Your task to perform on an android device: Go to Google Image 0: 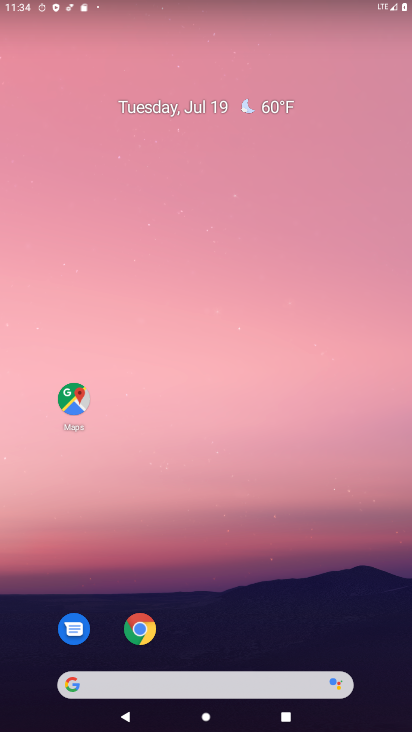
Step 0: drag from (231, 545) to (225, 135)
Your task to perform on an android device: Go to Google Image 1: 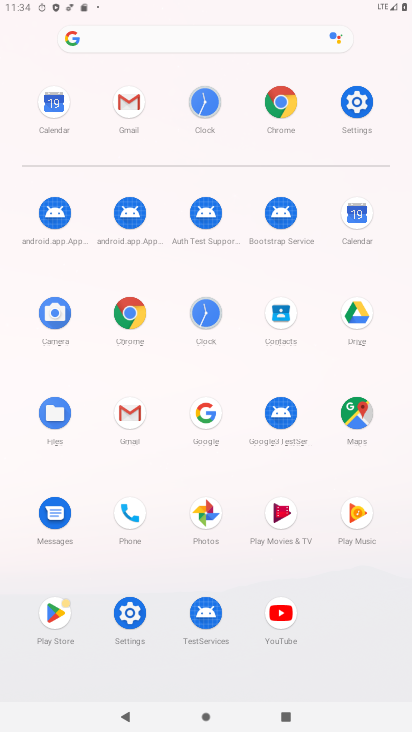
Step 1: click (200, 424)
Your task to perform on an android device: Go to Google Image 2: 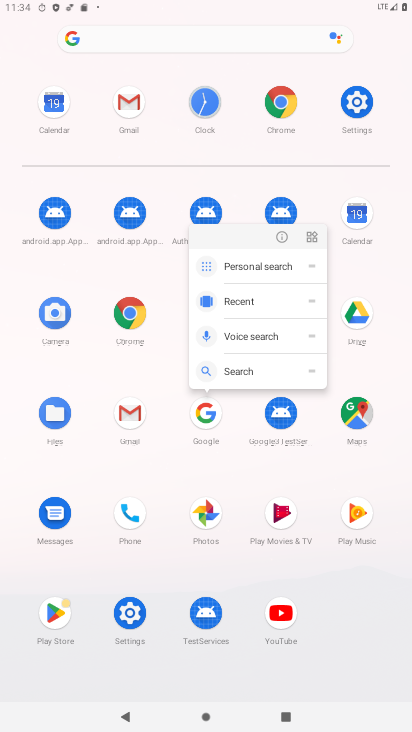
Step 2: click (202, 421)
Your task to perform on an android device: Go to Google Image 3: 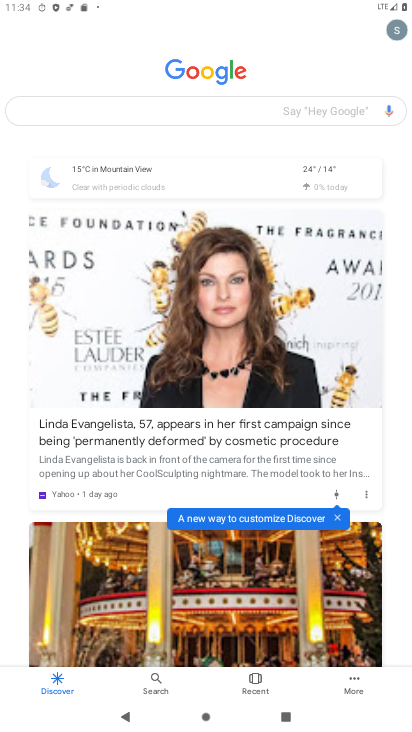
Step 3: task complete